Your task to perform on an android device: clear history in the chrome app Image 0: 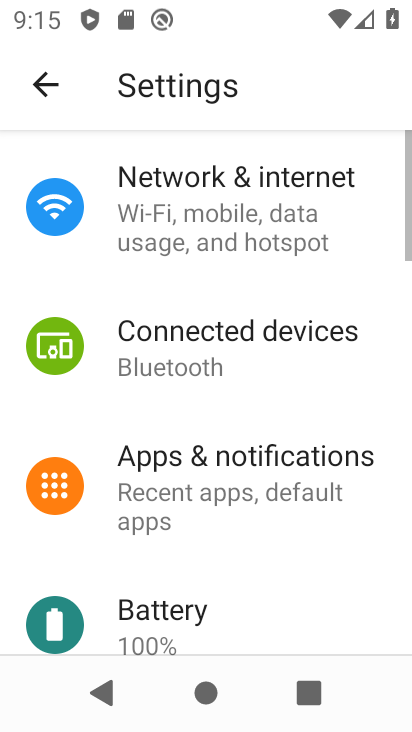
Step 0: press home button
Your task to perform on an android device: clear history in the chrome app Image 1: 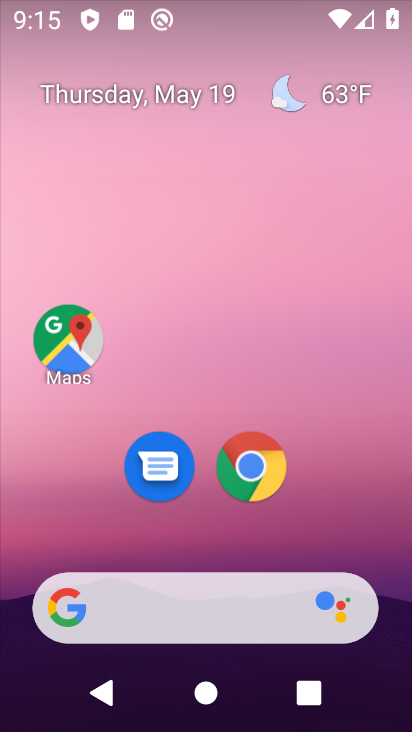
Step 1: drag from (400, 629) to (298, 66)
Your task to perform on an android device: clear history in the chrome app Image 2: 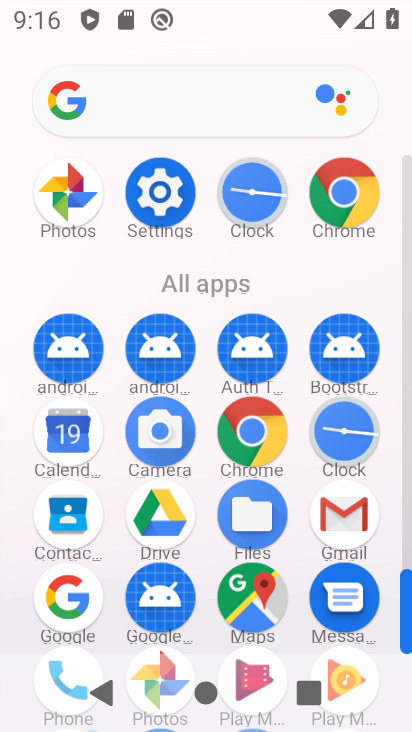
Step 2: click (339, 193)
Your task to perform on an android device: clear history in the chrome app Image 3: 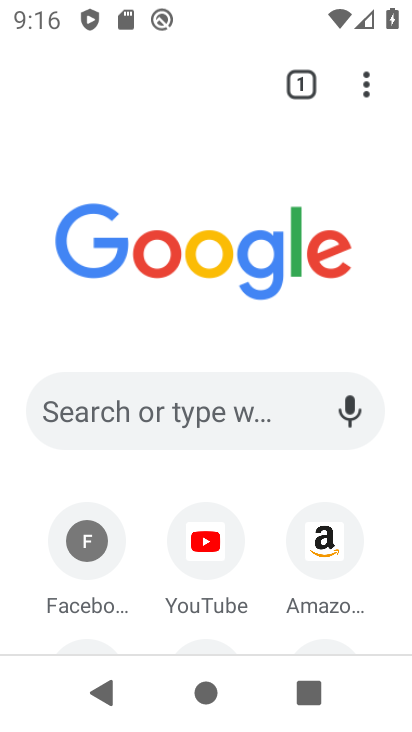
Step 3: click (370, 73)
Your task to perform on an android device: clear history in the chrome app Image 4: 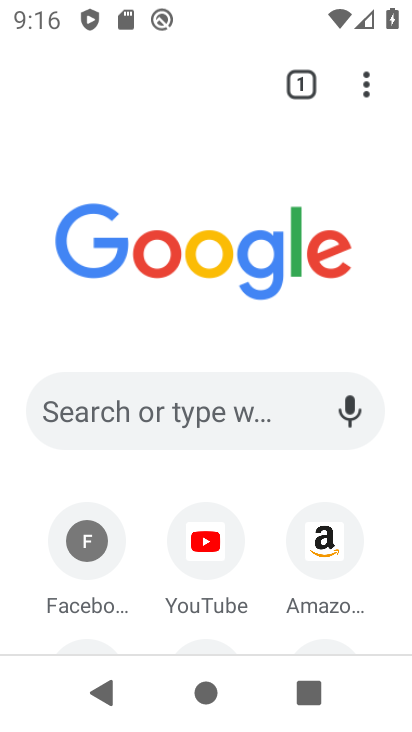
Step 4: click (363, 78)
Your task to perform on an android device: clear history in the chrome app Image 5: 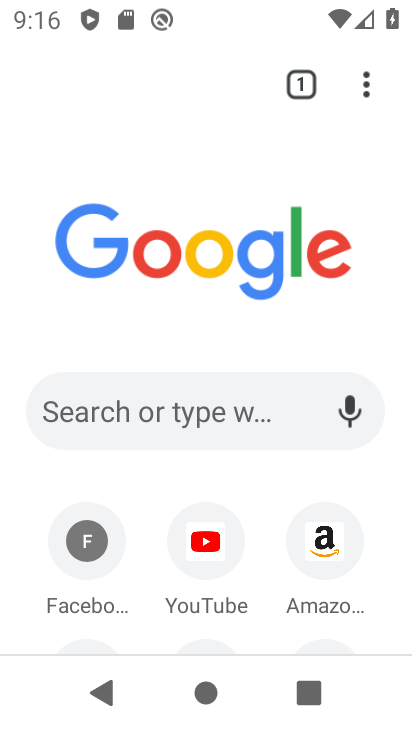
Step 5: click (363, 78)
Your task to perform on an android device: clear history in the chrome app Image 6: 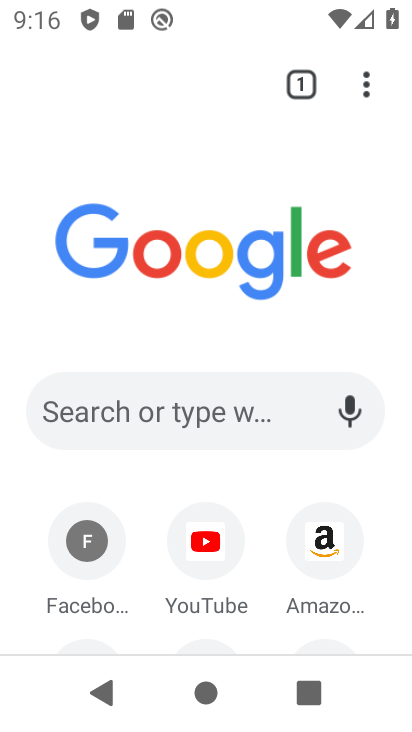
Step 6: click (366, 76)
Your task to perform on an android device: clear history in the chrome app Image 7: 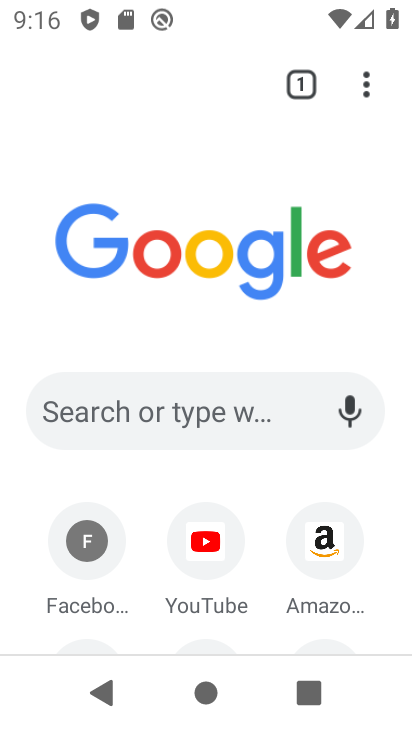
Step 7: click (365, 85)
Your task to perform on an android device: clear history in the chrome app Image 8: 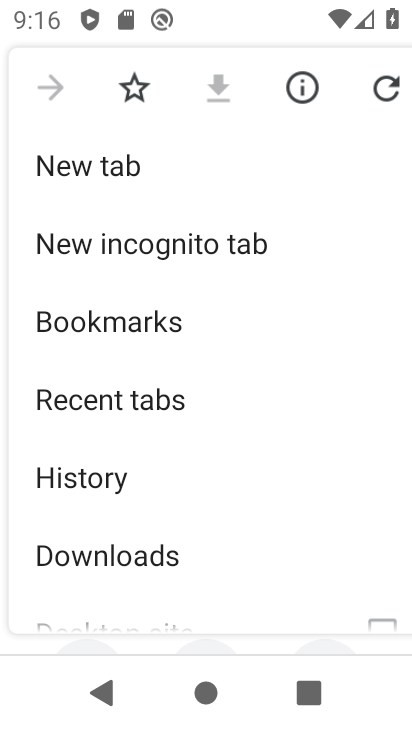
Step 8: click (85, 474)
Your task to perform on an android device: clear history in the chrome app Image 9: 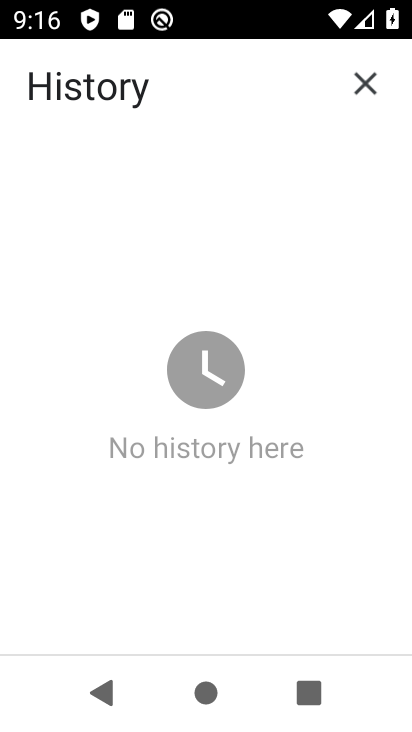
Step 9: task complete